Your task to perform on an android device: Go to Google Image 0: 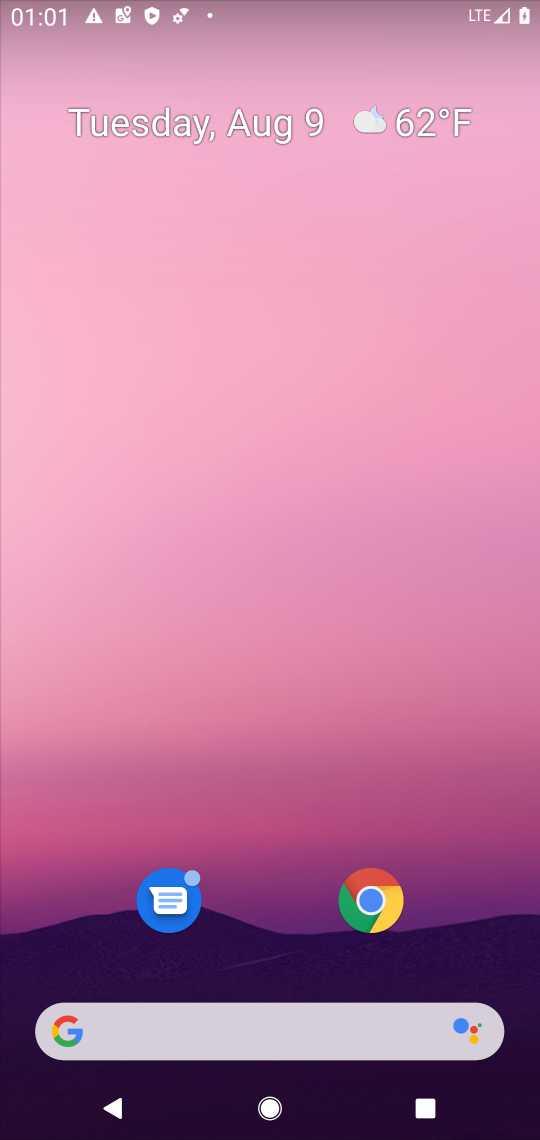
Step 0: drag from (265, 924) to (309, 194)
Your task to perform on an android device: Go to Google Image 1: 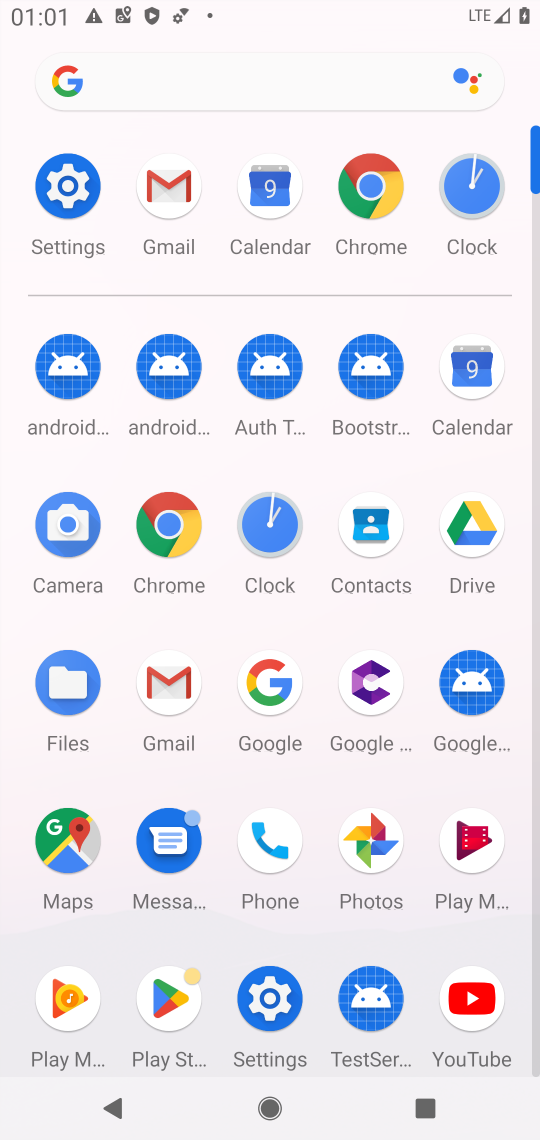
Step 1: click (268, 700)
Your task to perform on an android device: Go to Google Image 2: 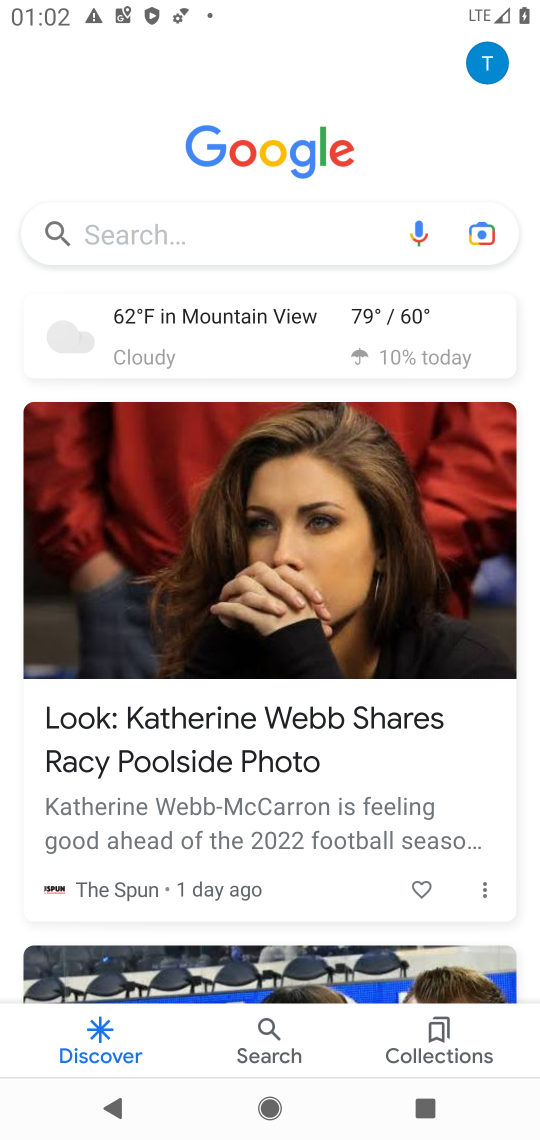
Step 2: task complete